Your task to perform on an android device: uninstall "LiveIn - Share Your Moment" Image 0: 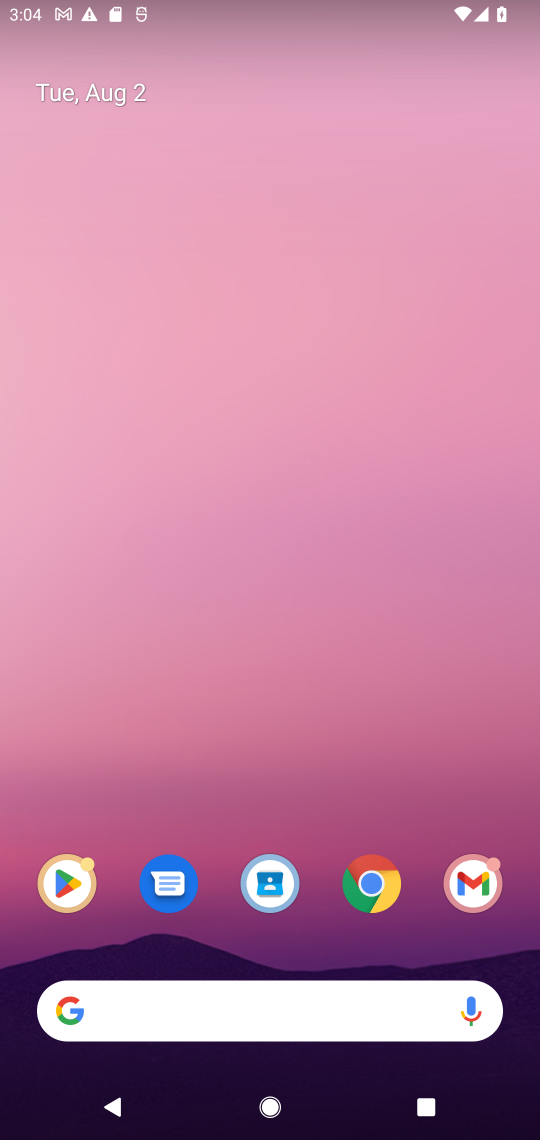
Step 0: press home button
Your task to perform on an android device: uninstall "LiveIn - Share Your Moment" Image 1: 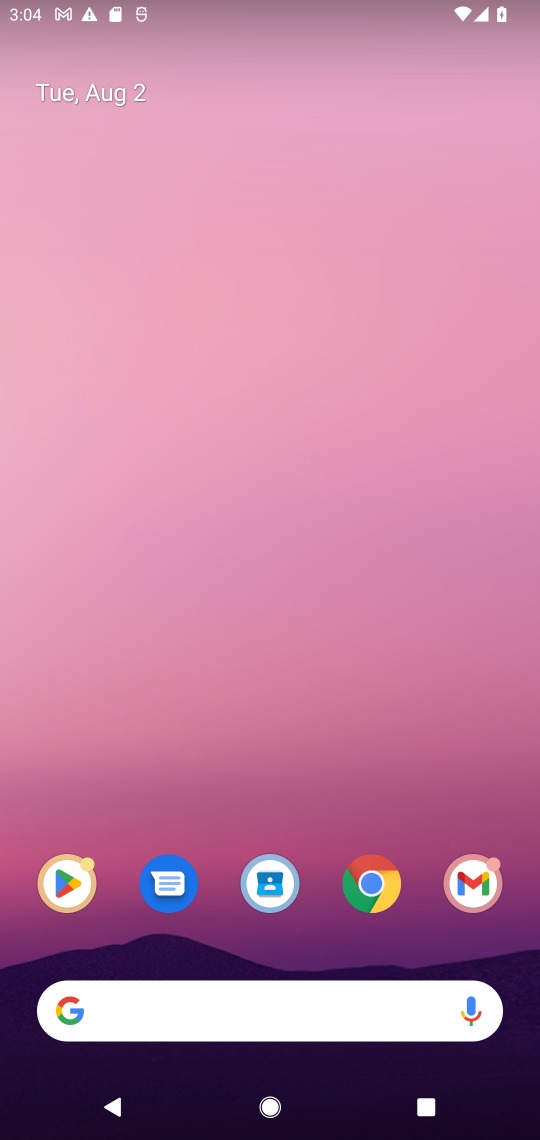
Step 1: click (66, 864)
Your task to perform on an android device: uninstall "LiveIn - Share Your Moment" Image 2: 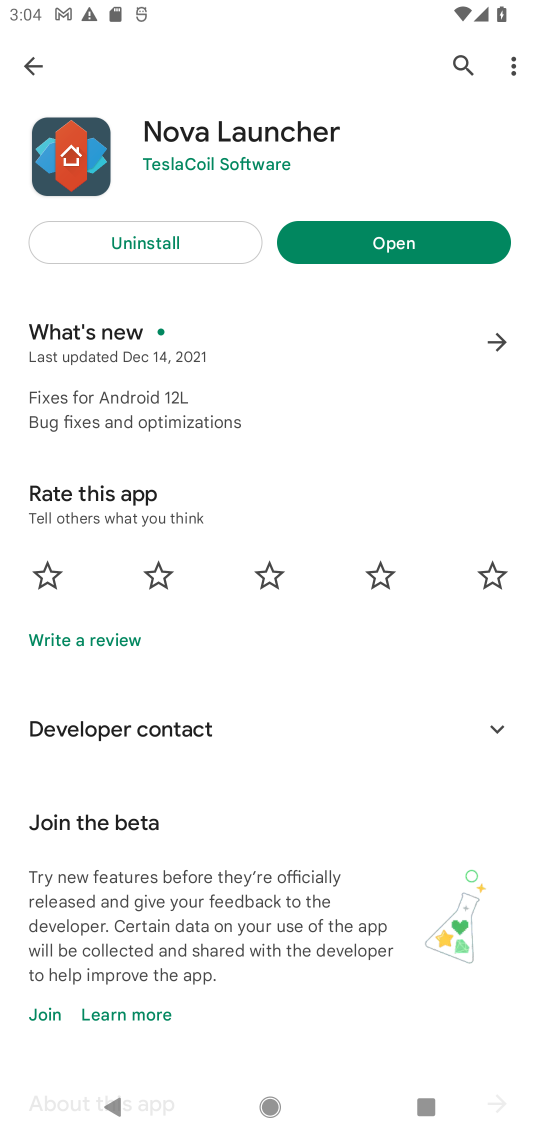
Step 2: click (452, 73)
Your task to perform on an android device: uninstall "LiveIn - Share Your Moment" Image 3: 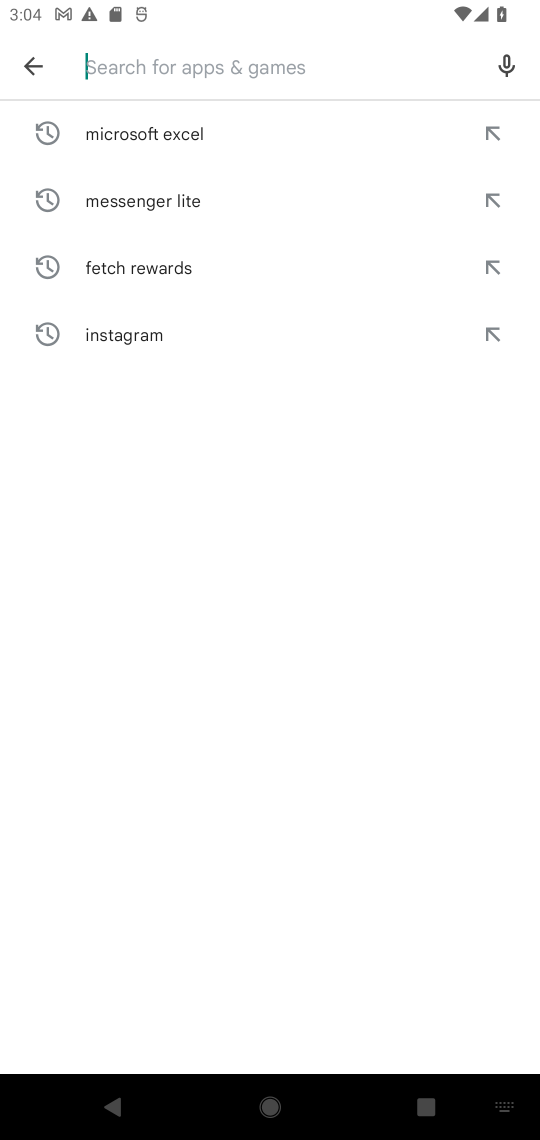
Step 3: click (452, 73)
Your task to perform on an android device: uninstall "LiveIn - Share Your Moment" Image 4: 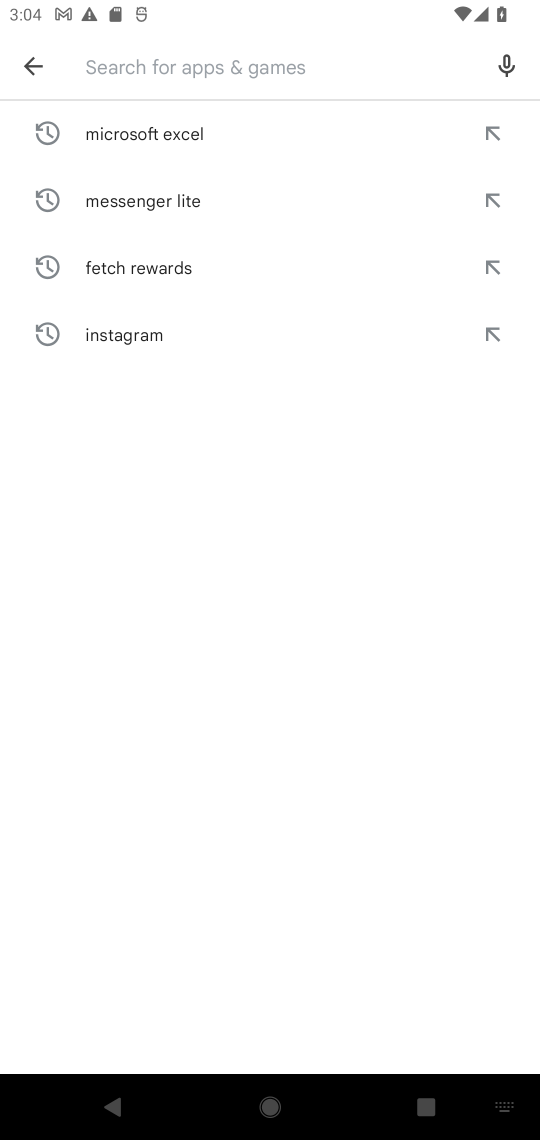
Step 4: type "LiveIn"
Your task to perform on an android device: uninstall "LiveIn - Share Your Moment" Image 5: 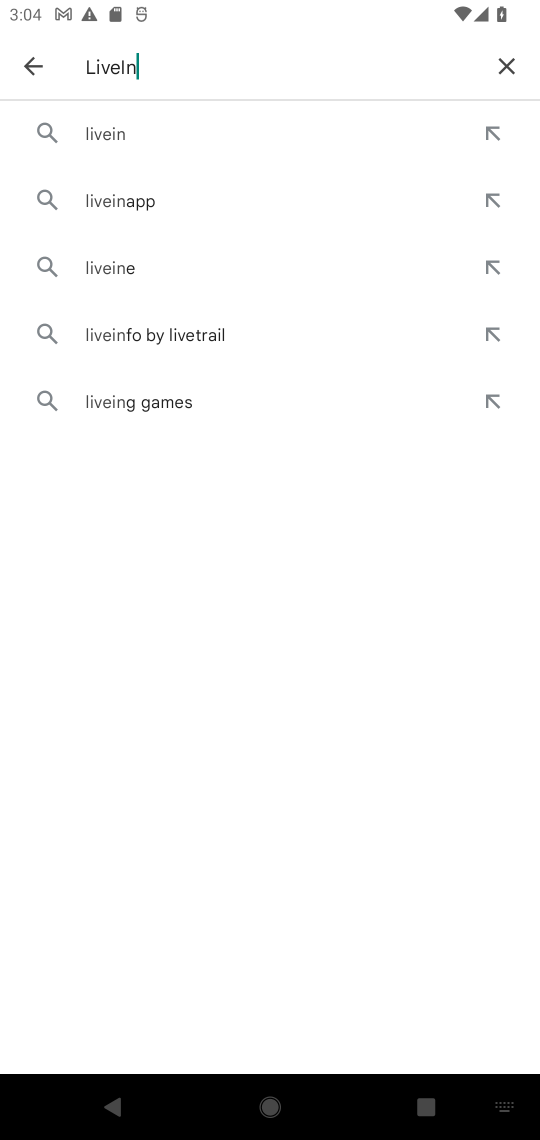
Step 5: click (182, 113)
Your task to perform on an android device: uninstall "LiveIn - Share Your Moment" Image 6: 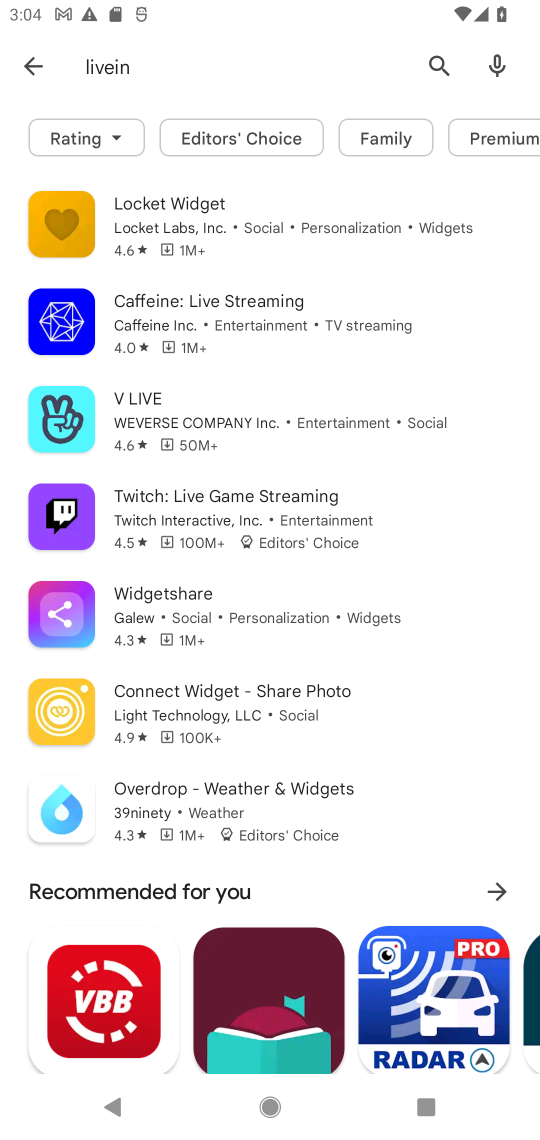
Step 6: task complete